Your task to perform on an android device: turn off javascript in the chrome app Image 0: 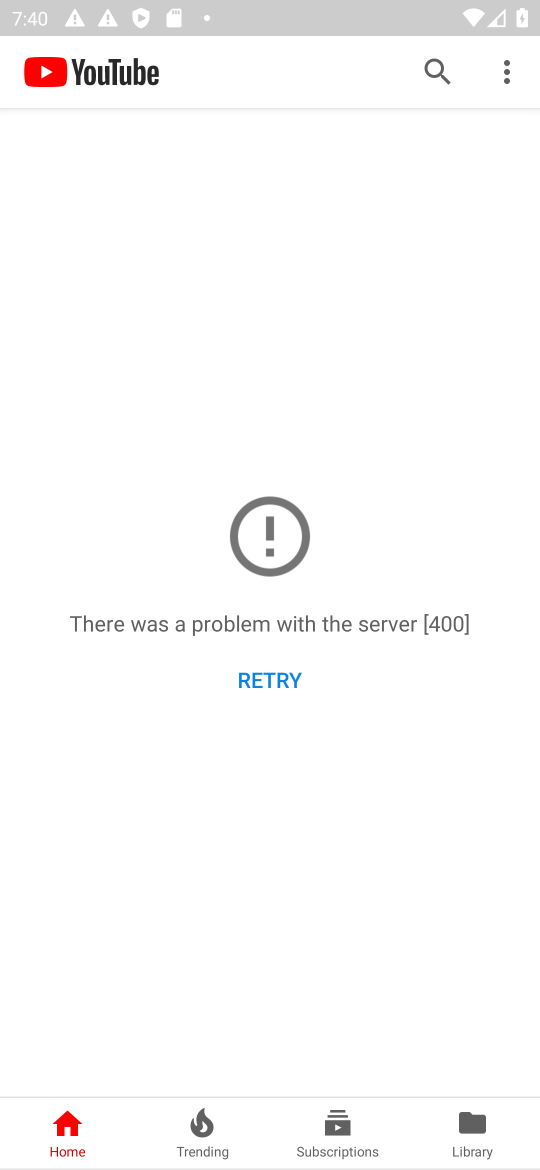
Step 0: press home button
Your task to perform on an android device: turn off javascript in the chrome app Image 1: 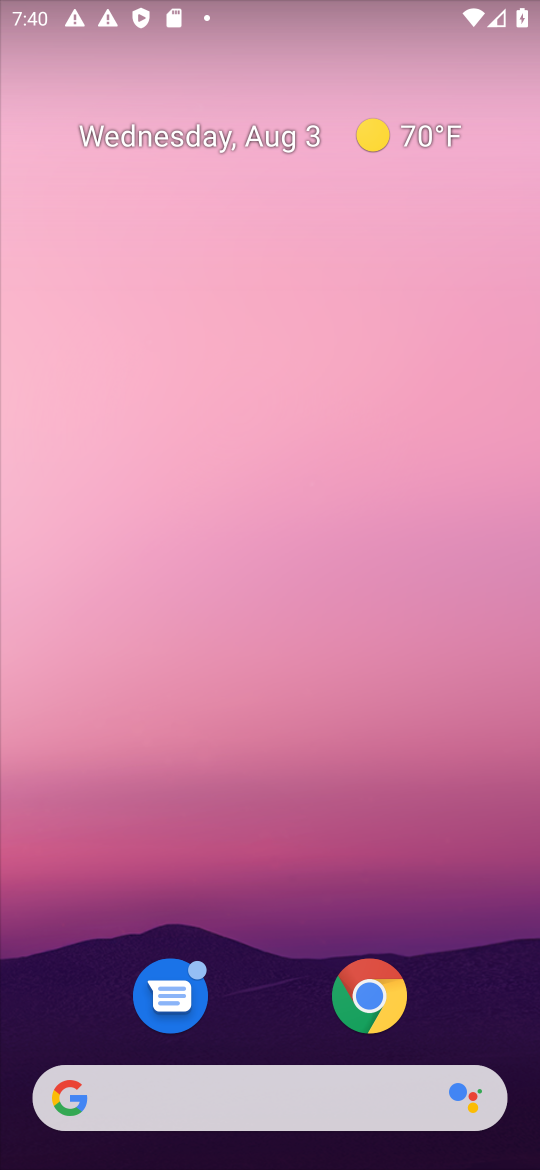
Step 1: click (373, 1011)
Your task to perform on an android device: turn off javascript in the chrome app Image 2: 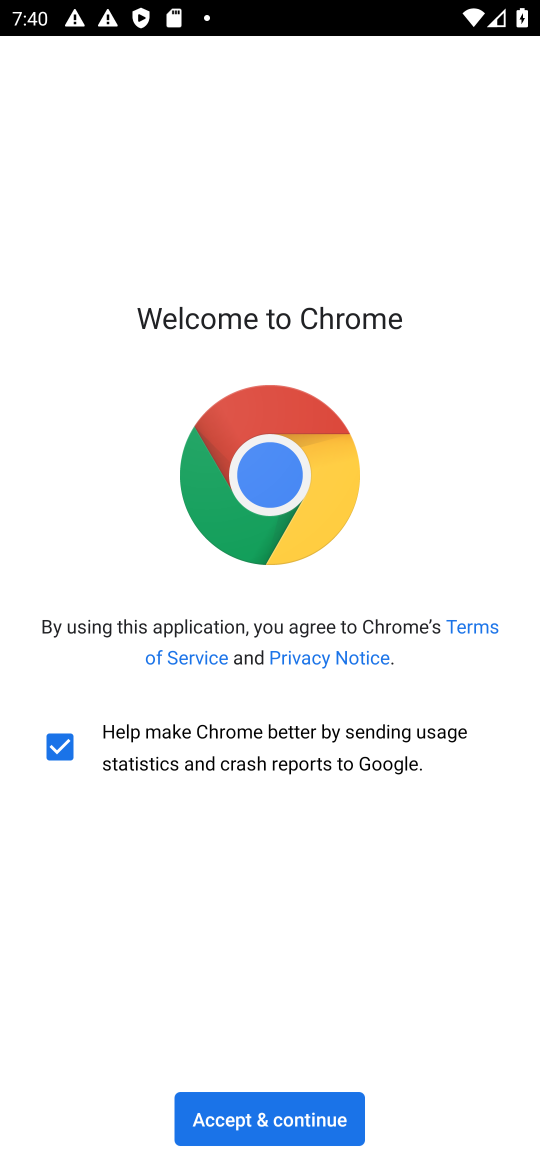
Step 2: click (325, 1109)
Your task to perform on an android device: turn off javascript in the chrome app Image 3: 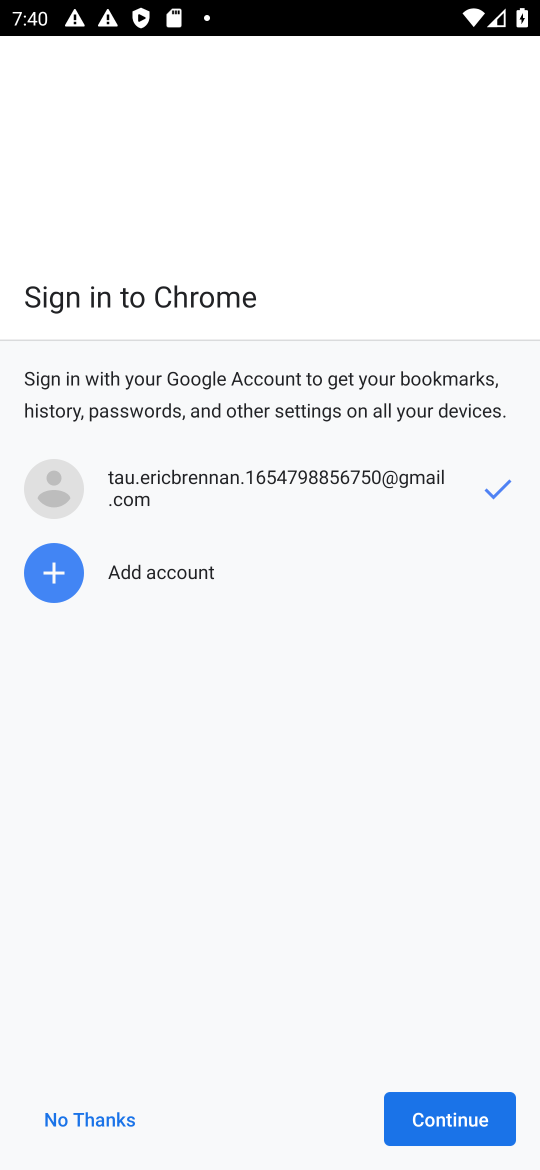
Step 3: click (427, 1115)
Your task to perform on an android device: turn off javascript in the chrome app Image 4: 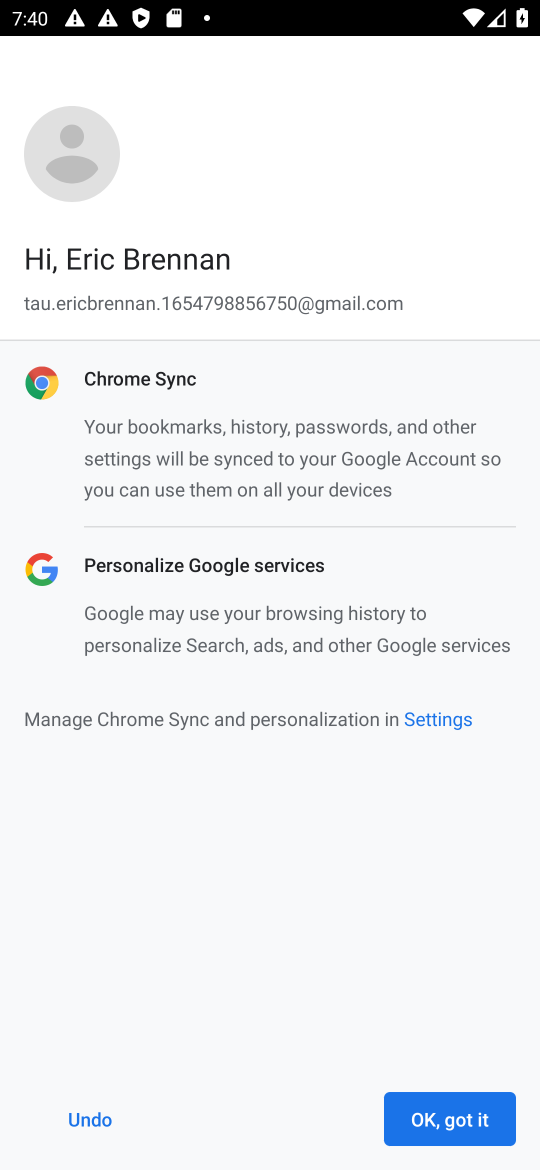
Step 4: click (427, 1113)
Your task to perform on an android device: turn off javascript in the chrome app Image 5: 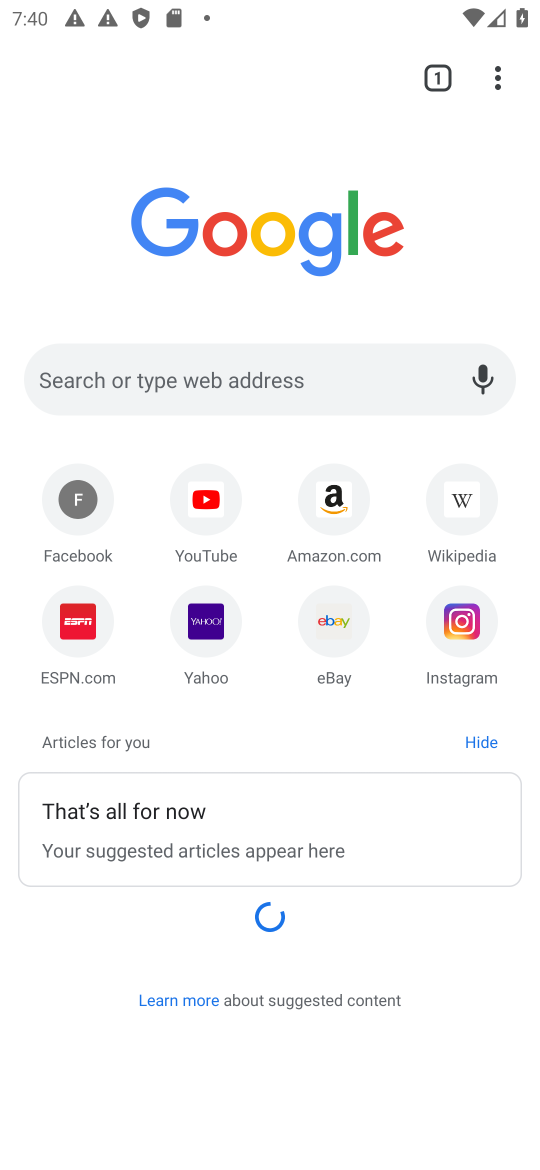
Step 5: click (497, 80)
Your task to perform on an android device: turn off javascript in the chrome app Image 6: 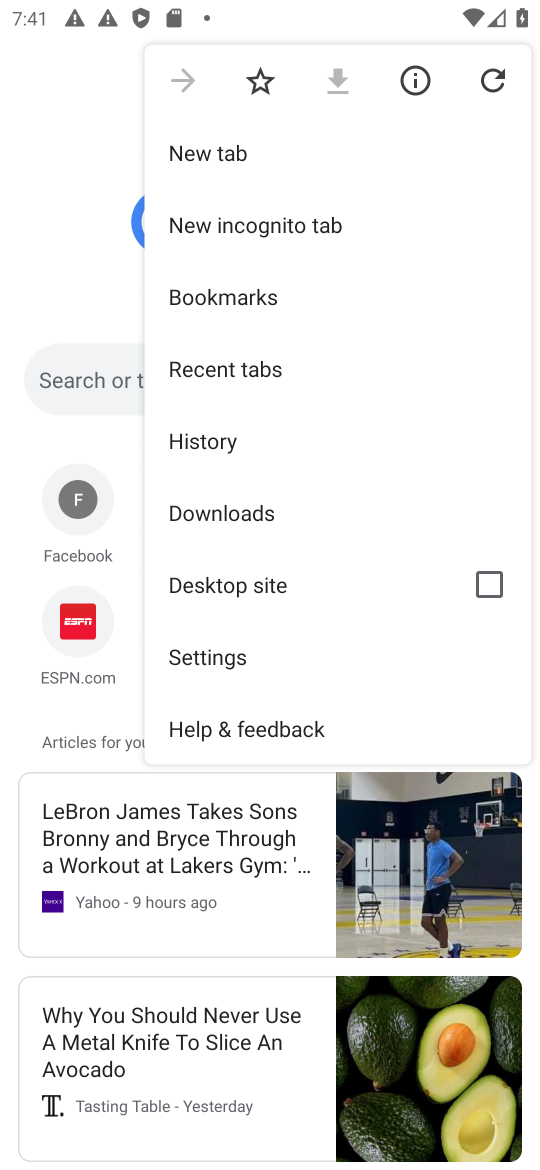
Step 6: click (231, 652)
Your task to perform on an android device: turn off javascript in the chrome app Image 7: 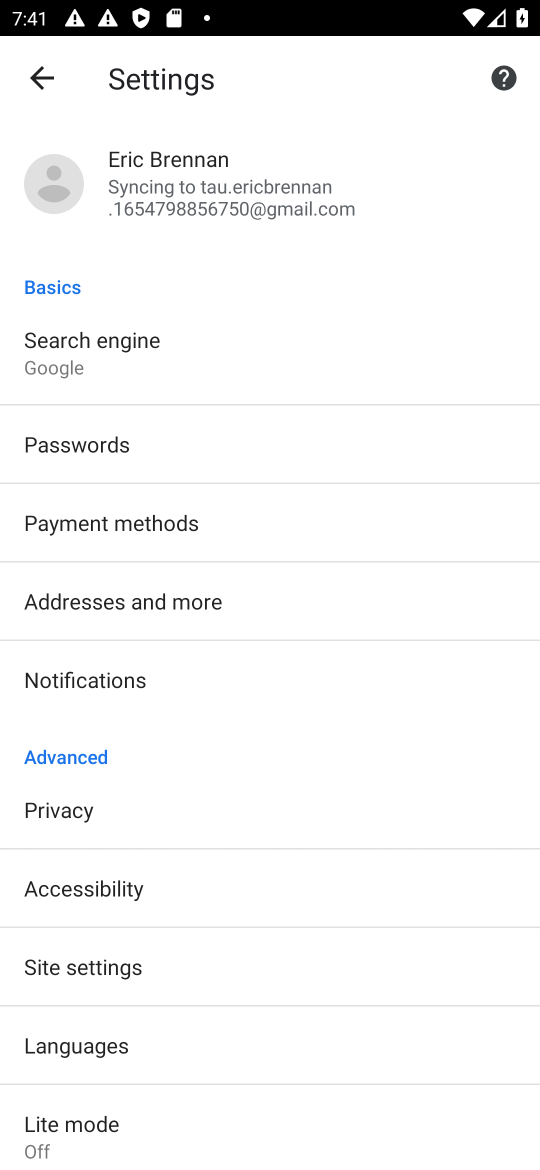
Step 7: click (127, 965)
Your task to perform on an android device: turn off javascript in the chrome app Image 8: 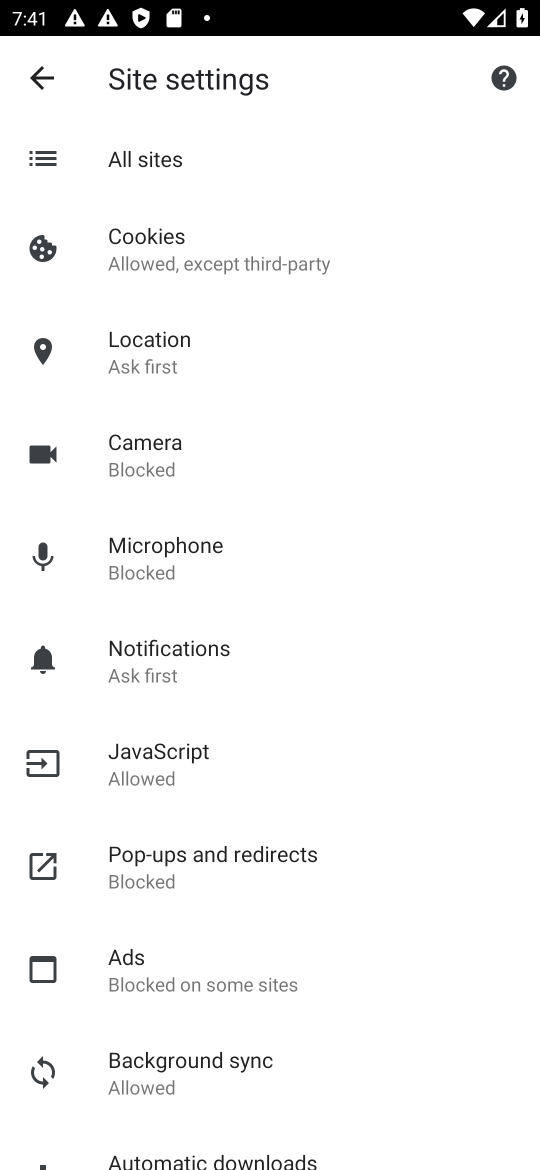
Step 8: click (209, 773)
Your task to perform on an android device: turn off javascript in the chrome app Image 9: 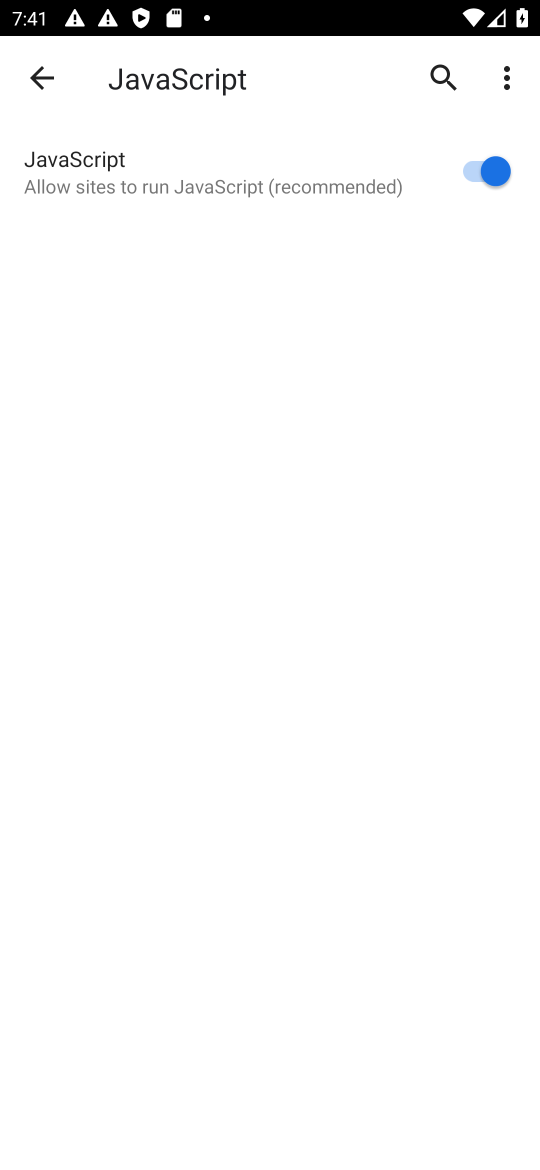
Step 9: click (489, 169)
Your task to perform on an android device: turn off javascript in the chrome app Image 10: 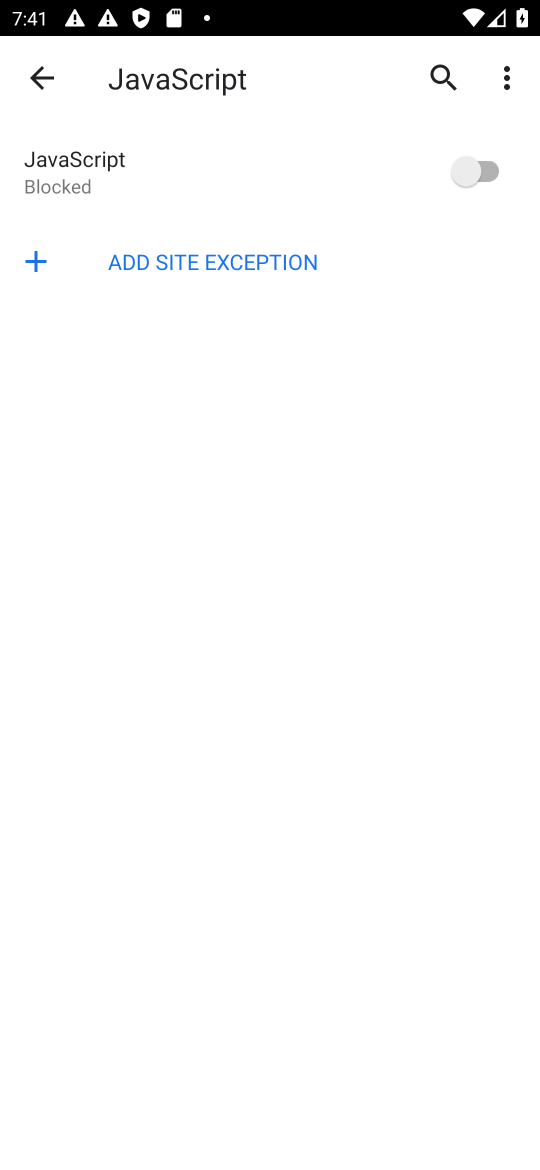
Step 10: task complete